Your task to perform on an android device: Open CNN.com Image 0: 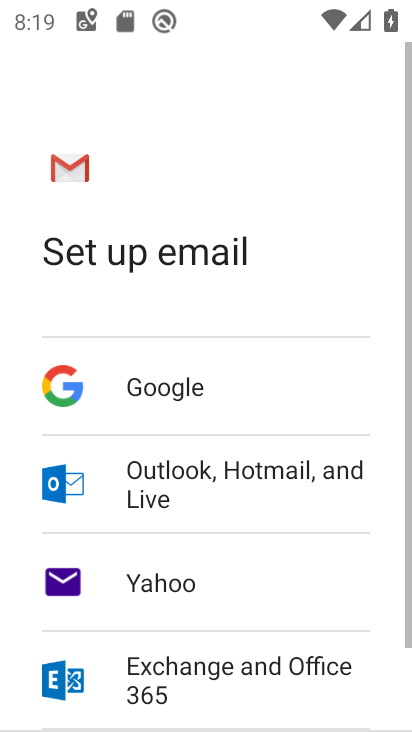
Step 0: press home button
Your task to perform on an android device: Open CNN.com Image 1: 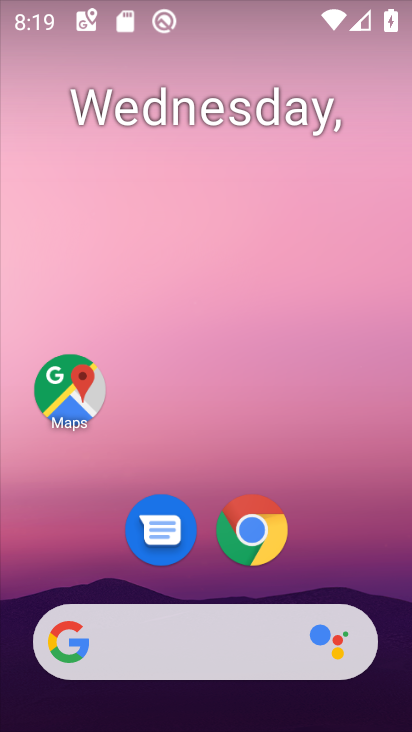
Step 1: drag from (407, 622) to (268, 34)
Your task to perform on an android device: Open CNN.com Image 2: 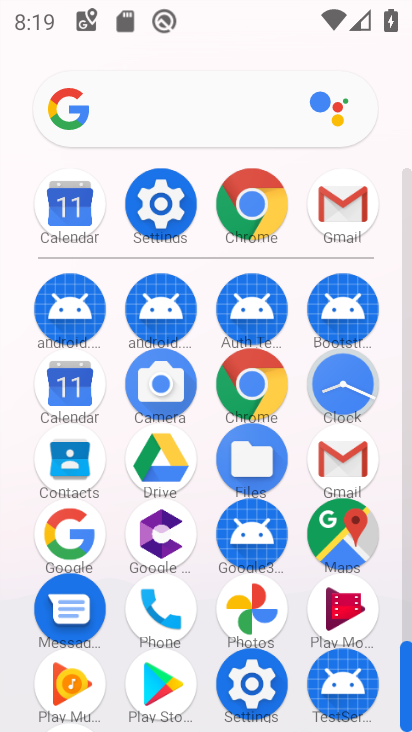
Step 2: click (233, 384)
Your task to perform on an android device: Open CNN.com Image 3: 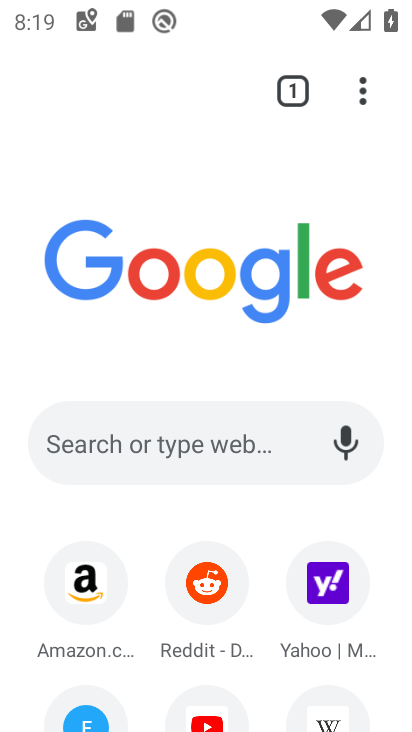
Step 3: click (137, 461)
Your task to perform on an android device: Open CNN.com Image 4: 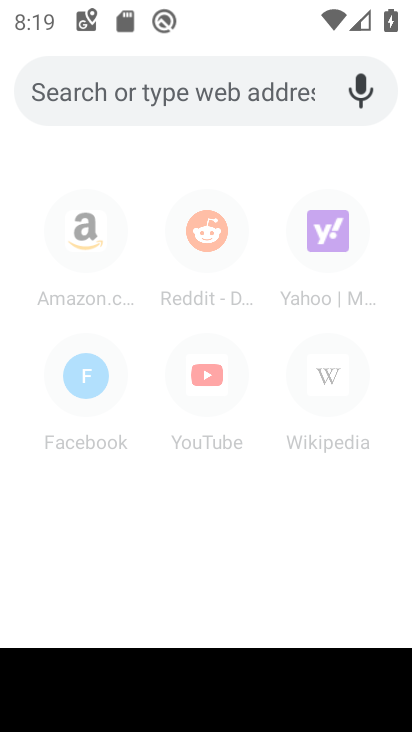
Step 4: type "cnn.com"
Your task to perform on an android device: Open CNN.com Image 5: 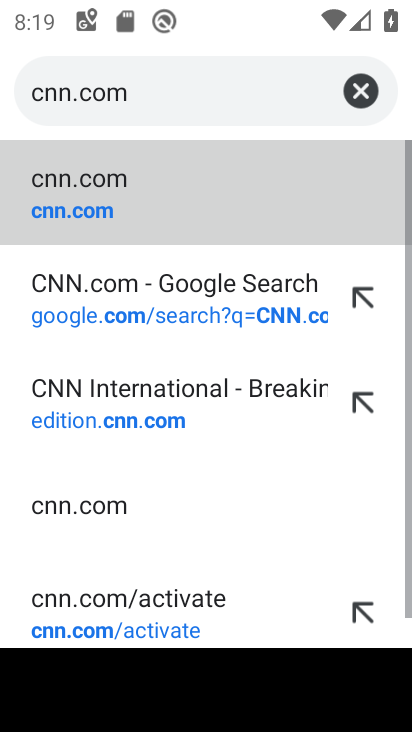
Step 5: click (227, 228)
Your task to perform on an android device: Open CNN.com Image 6: 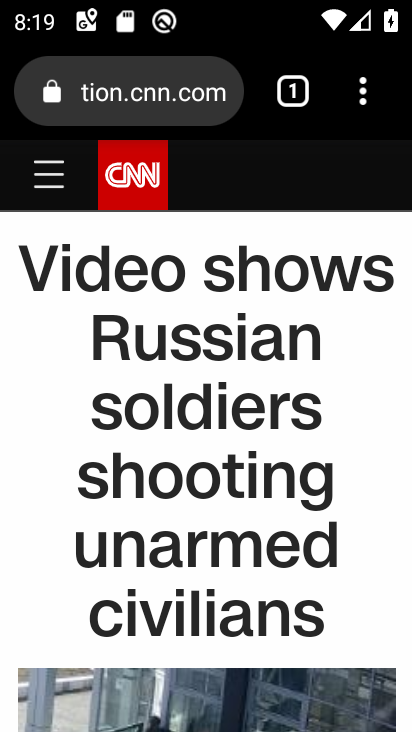
Step 6: task complete